Your task to perform on an android device: turn on priority inbox in the gmail app Image 0: 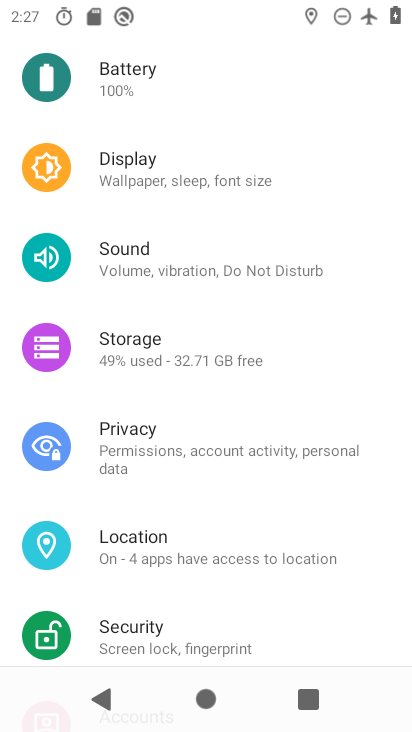
Step 0: press home button
Your task to perform on an android device: turn on priority inbox in the gmail app Image 1: 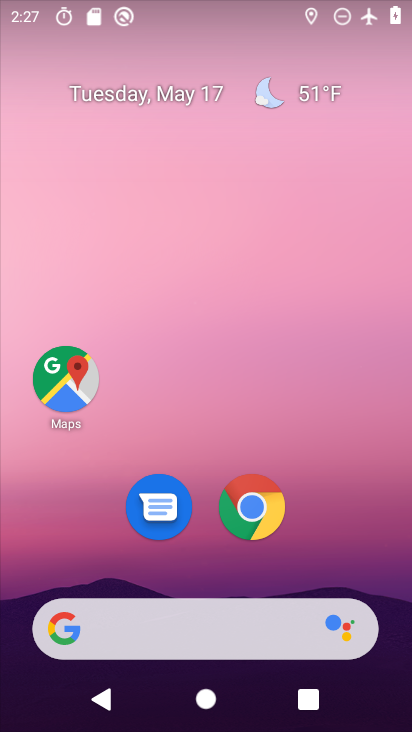
Step 1: drag from (187, 530) to (216, 94)
Your task to perform on an android device: turn on priority inbox in the gmail app Image 2: 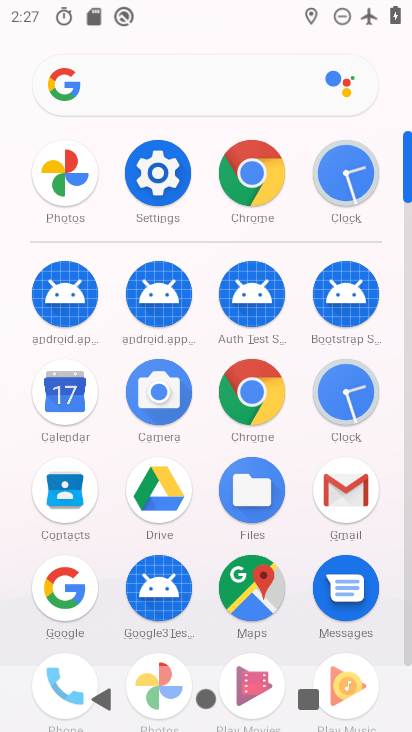
Step 2: click (340, 489)
Your task to perform on an android device: turn on priority inbox in the gmail app Image 3: 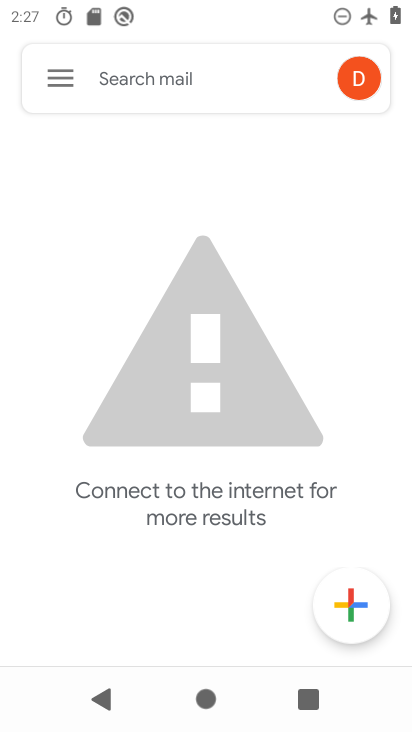
Step 3: click (50, 77)
Your task to perform on an android device: turn on priority inbox in the gmail app Image 4: 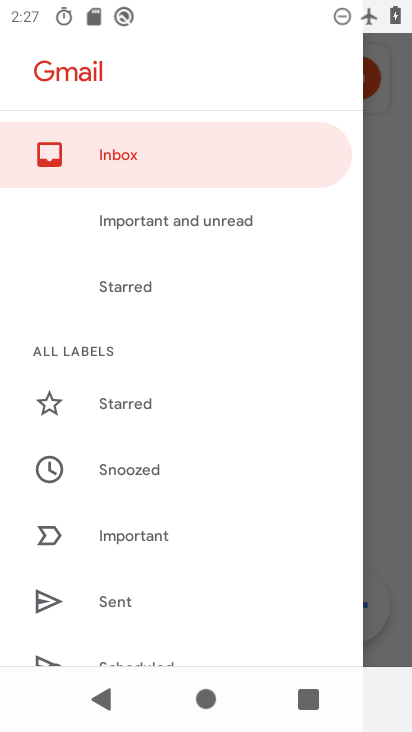
Step 4: drag from (201, 637) to (181, 109)
Your task to perform on an android device: turn on priority inbox in the gmail app Image 5: 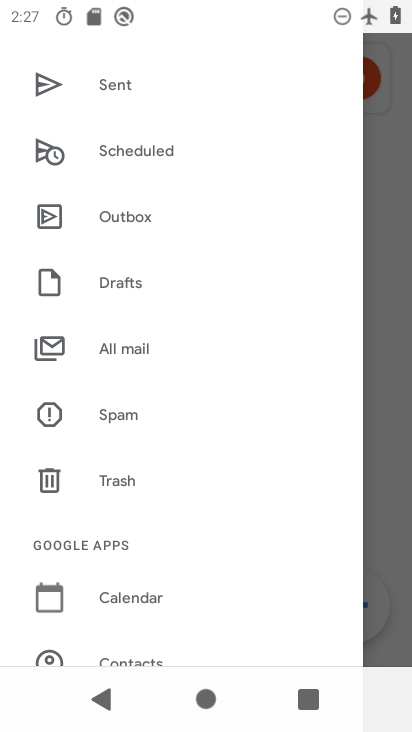
Step 5: drag from (146, 543) to (198, 300)
Your task to perform on an android device: turn on priority inbox in the gmail app Image 6: 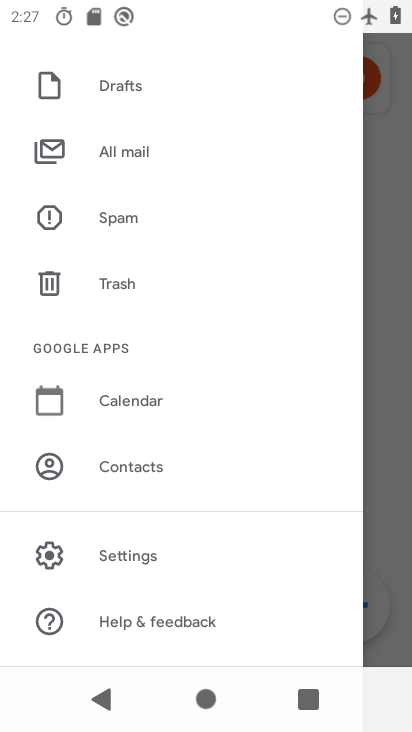
Step 6: click (110, 565)
Your task to perform on an android device: turn on priority inbox in the gmail app Image 7: 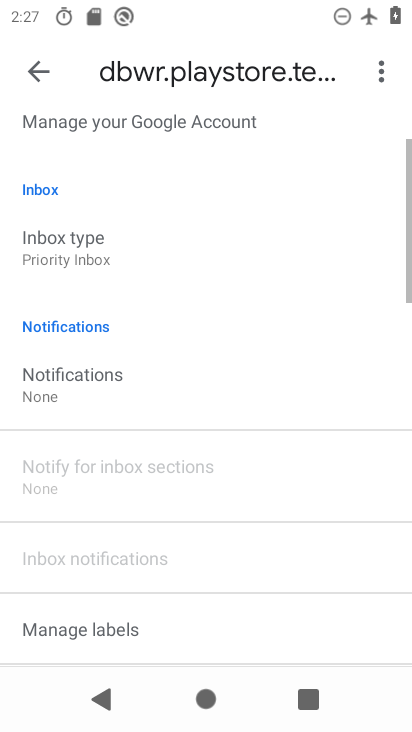
Step 7: task complete